Your task to perform on an android device: Toggle the flashlight Image 0: 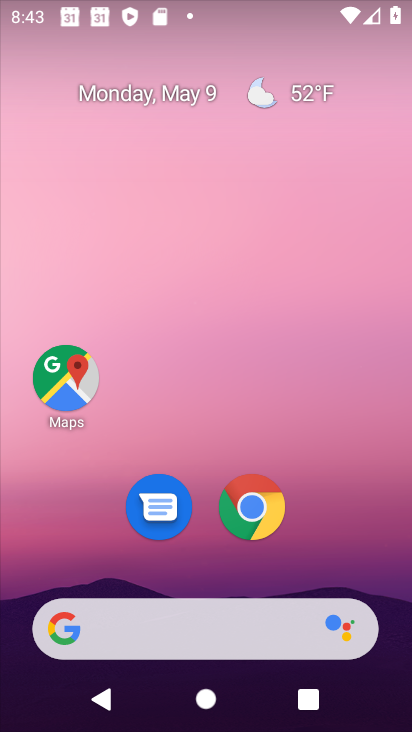
Step 0: drag from (317, 545) to (240, 119)
Your task to perform on an android device: Toggle the flashlight Image 1: 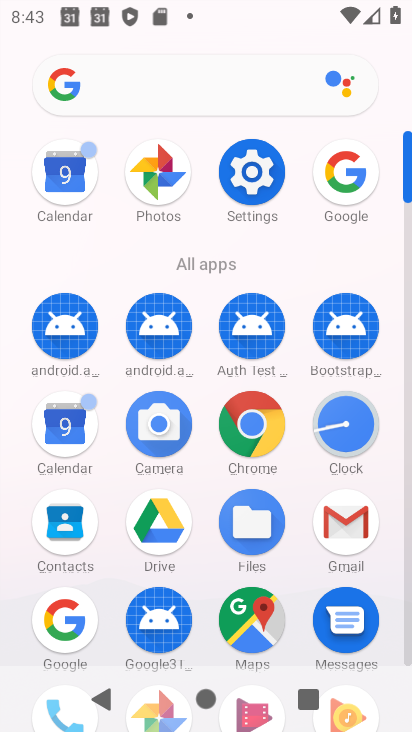
Step 1: click (251, 164)
Your task to perform on an android device: Toggle the flashlight Image 2: 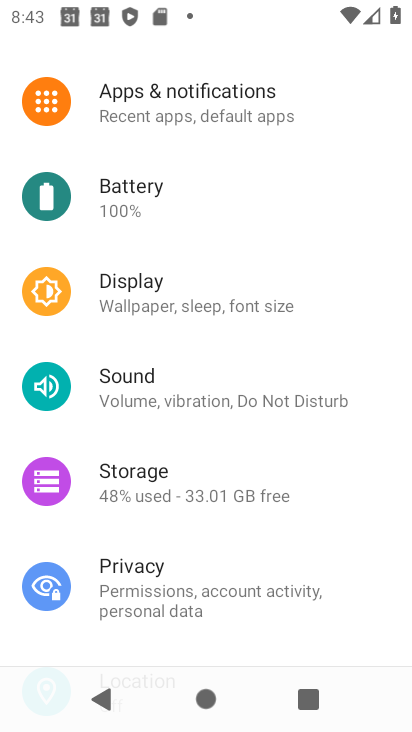
Step 2: click (169, 304)
Your task to perform on an android device: Toggle the flashlight Image 3: 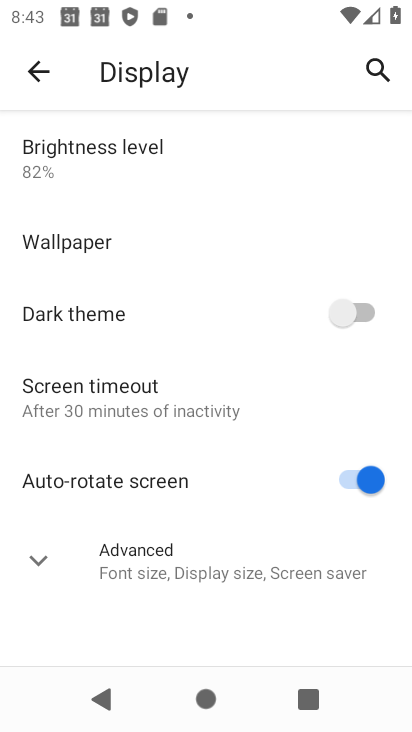
Step 3: click (164, 565)
Your task to perform on an android device: Toggle the flashlight Image 4: 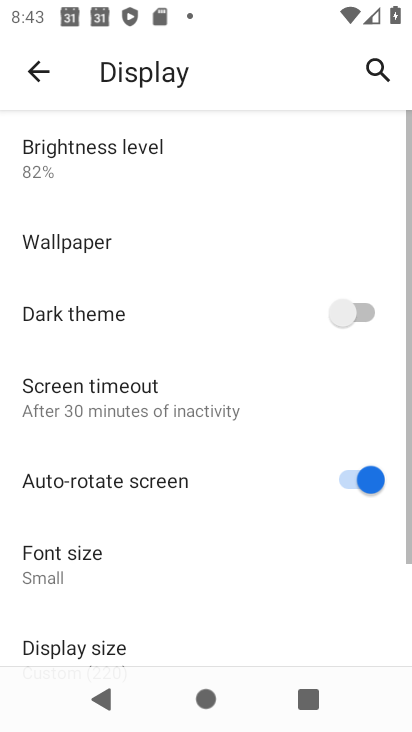
Step 4: task complete